Your task to perform on an android device: change keyboard looks Image 0: 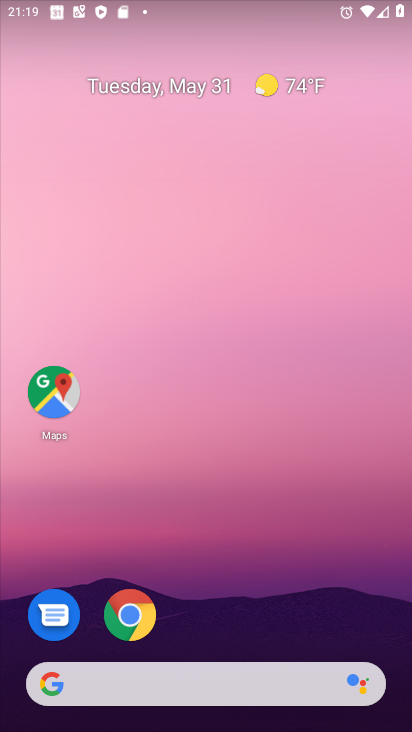
Step 0: drag from (230, 627) to (225, 204)
Your task to perform on an android device: change keyboard looks Image 1: 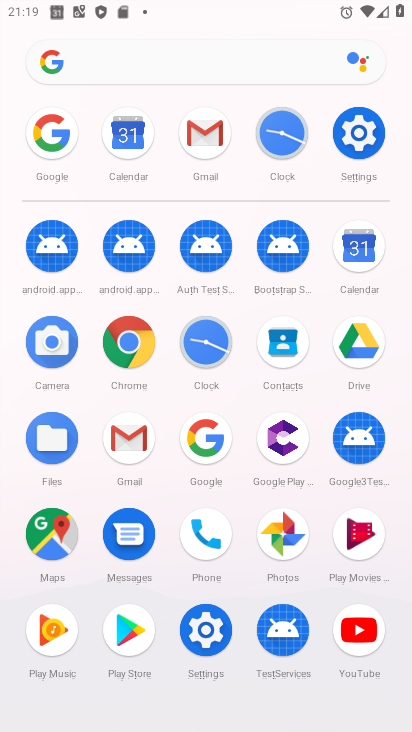
Step 1: click (366, 121)
Your task to perform on an android device: change keyboard looks Image 2: 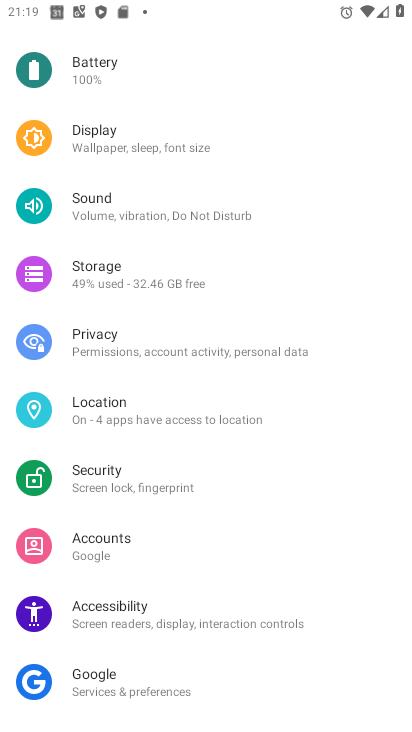
Step 2: drag from (174, 659) to (189, 130)
Your task to perform on an android device: change keyboard looks Image 3: 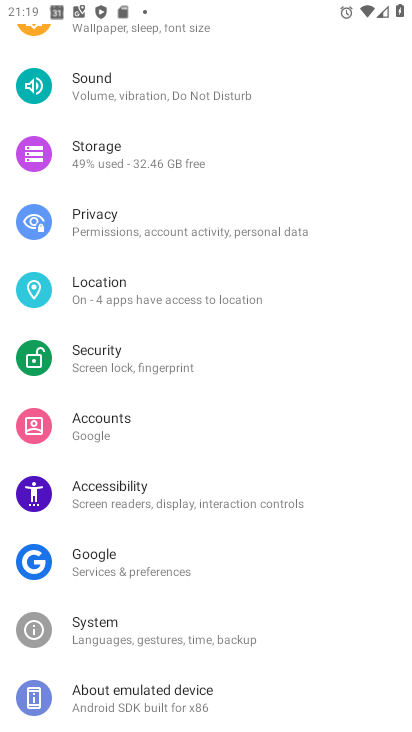
Step 3: click (113, 639)
Your task to perform on an android device: change keyboard looks Image 4: 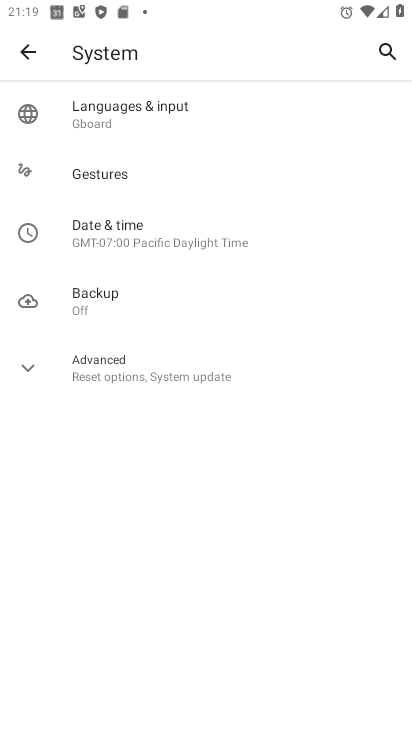
Step 4: click (153, 121)
Your task to perform on an android device: change keyboard looks Image 5: 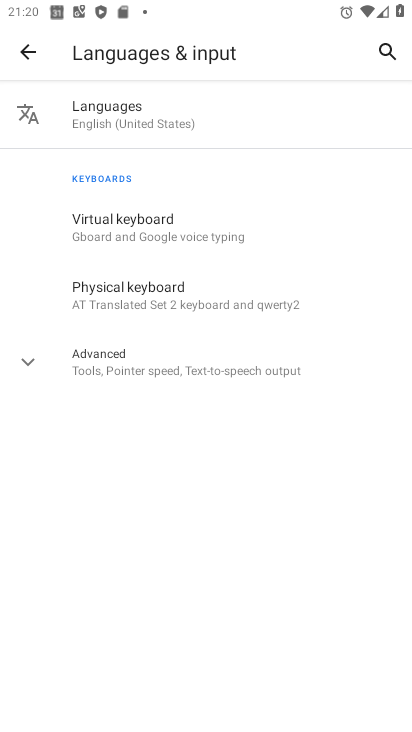
Step 5: click (106, 217)
Your task to perform on an android device: change keyboard looks Image 6: 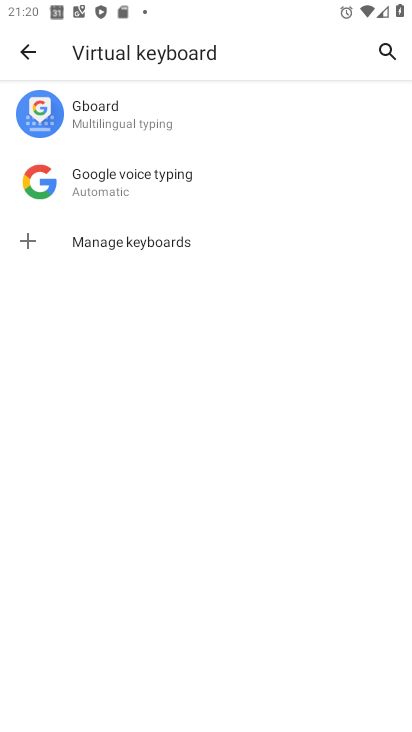
Step 6: click (125, 140)
Your task to perform on an android device: change keyboard looks Image 7: 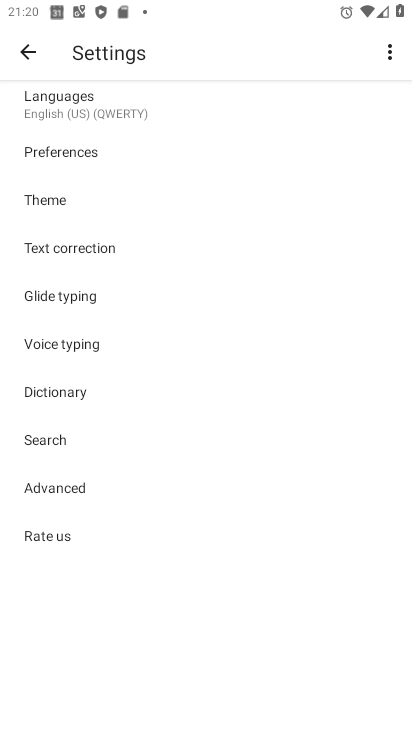
Step 7: click (87, 189)
Your task to perform on an android device: change keyboard looks Image 8: 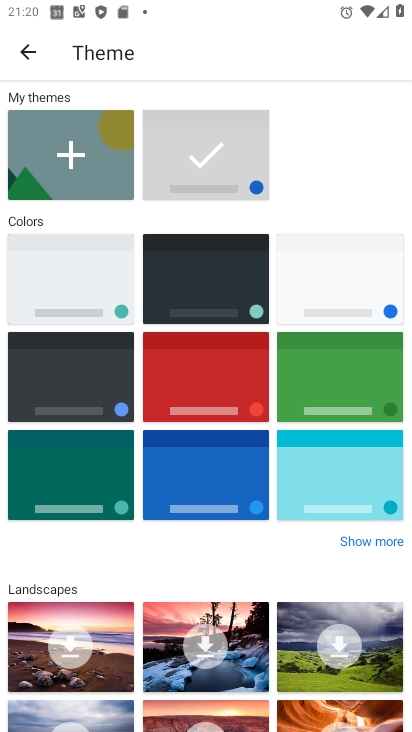
Step 8: click (76, 454)
Your task to perform on an android device: change keyboard looks Image 9: 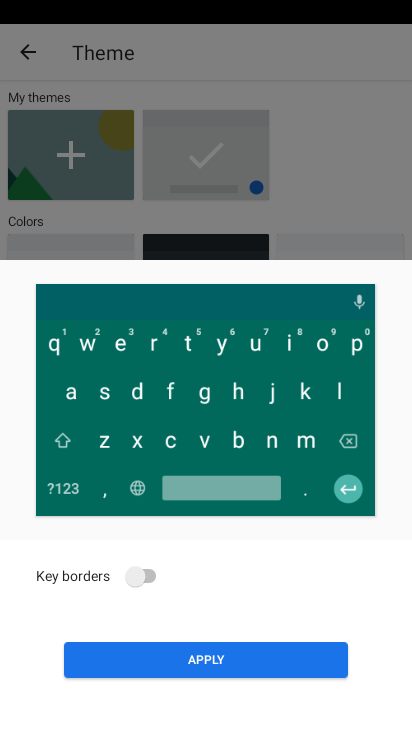
Step 9: click (195, 667)
Your task to perform on an android device: change keyboard looks Image 10: 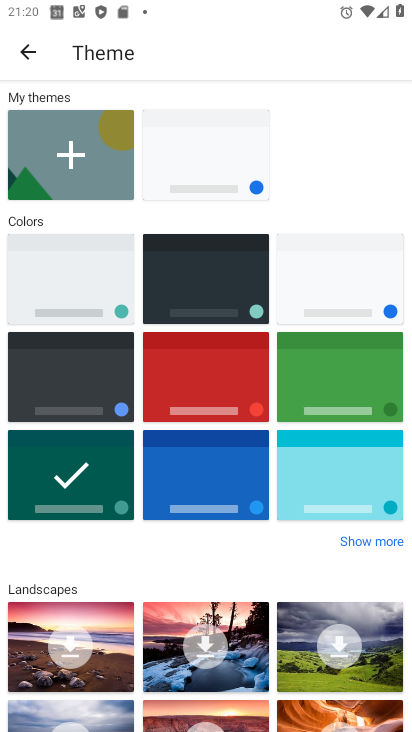
Step 10: task complete